Your task to perform on an android device: change the clock display to digital Image 0: 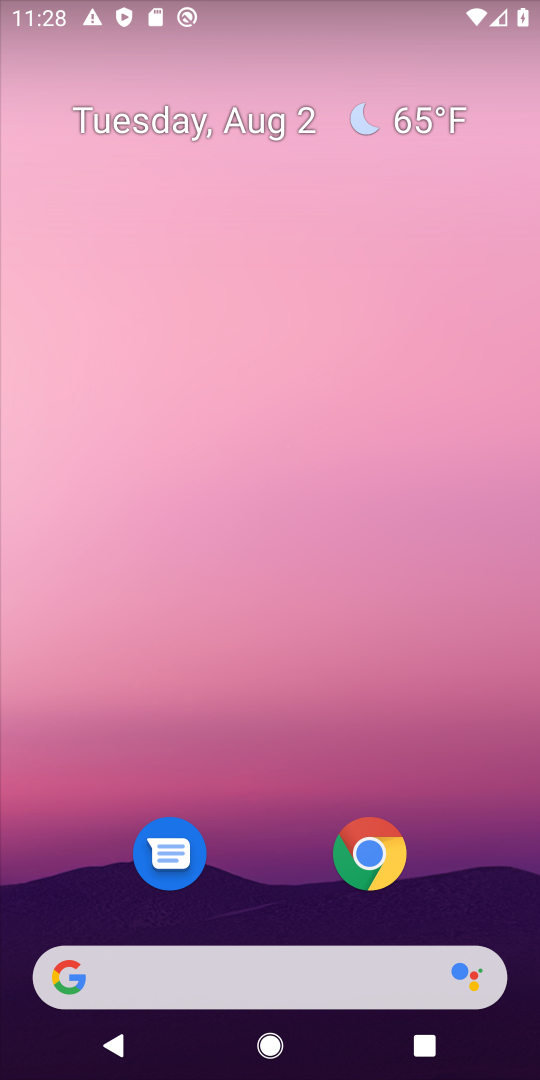
Step 0: press home button
Your task to perform on an android device: change the clock display to digital Image 1: 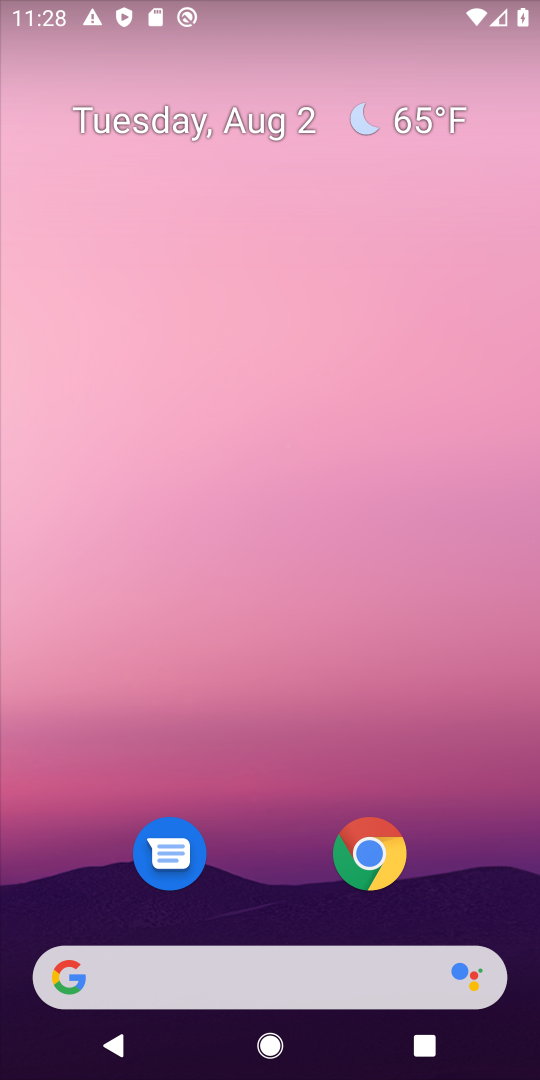
Step 1: drag from (289, 872) to (416, 286)
Your task to perform on an android device: change the clock display to digital Image 2: 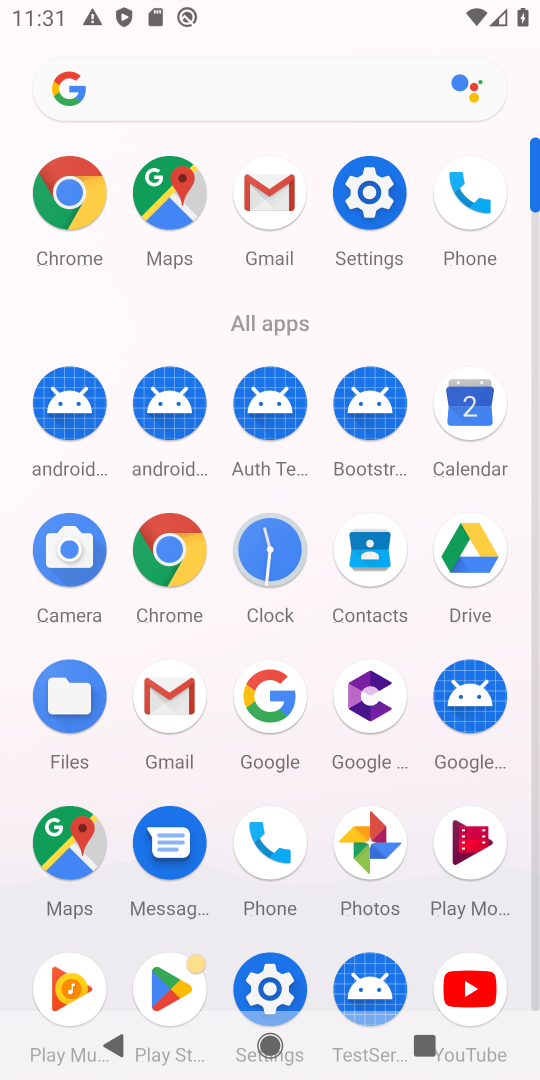
Step 2: click (288, 554)
Your task to perform on an android device: change the clock display to digital Image 3: 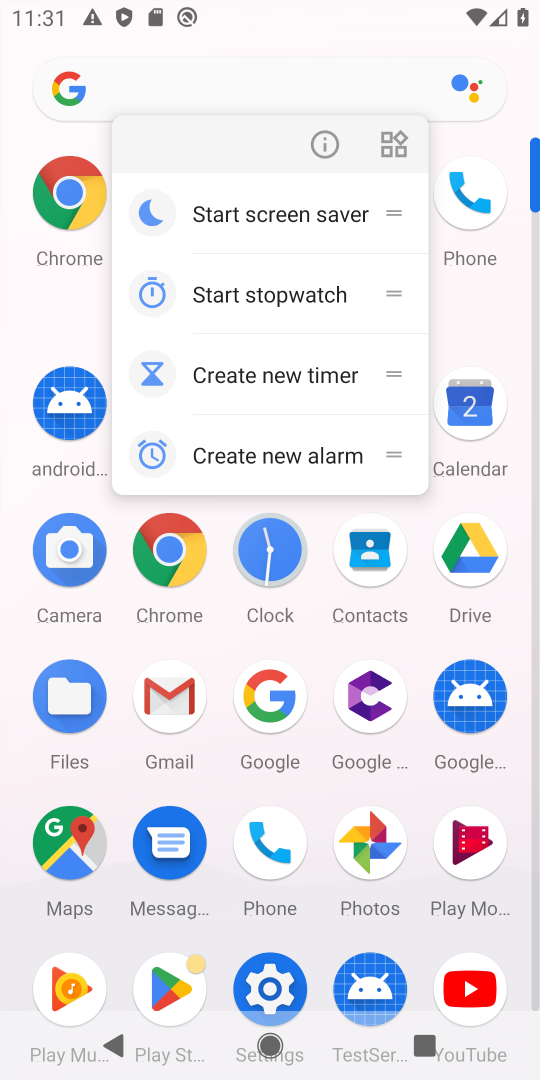
Step 3: click (271, 594)
Your task to perform on an android device: change the clock display to digital Image 4: 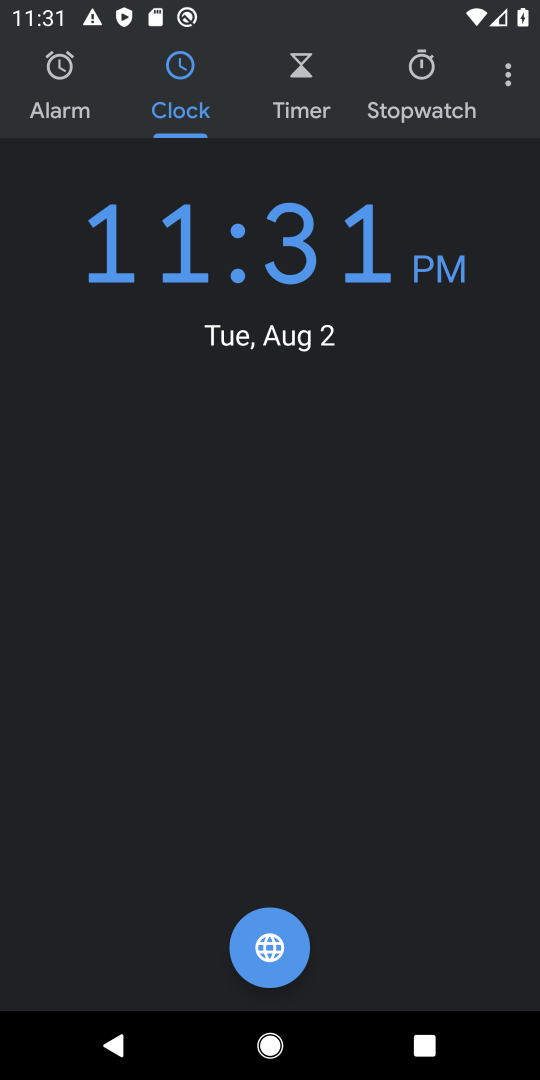
Step 4: click (509, 74)
Your task to perform on an android device: change the clock display to digital Image 5: 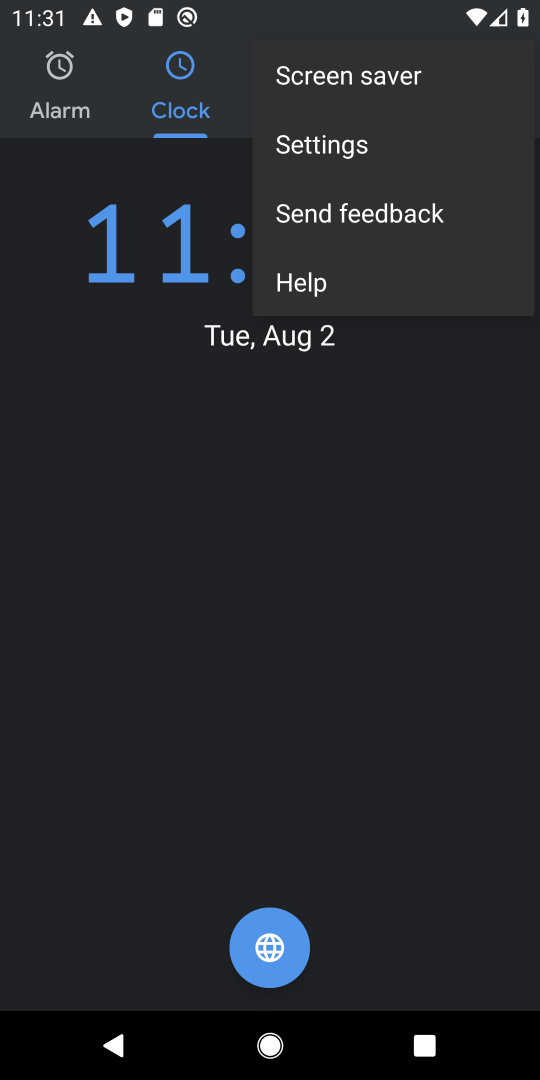
Step 5: click (348, 156)
Your task to perform on an android device: change the clock display to digital Image 6: 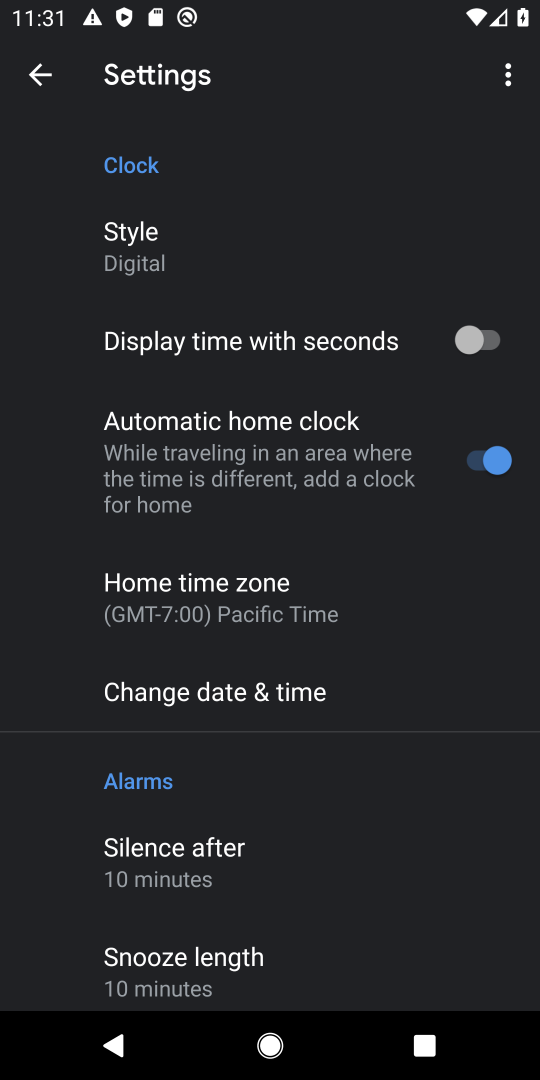
Step 6: task complete